Your task to perform on an android device: Go to network settings Image 0: 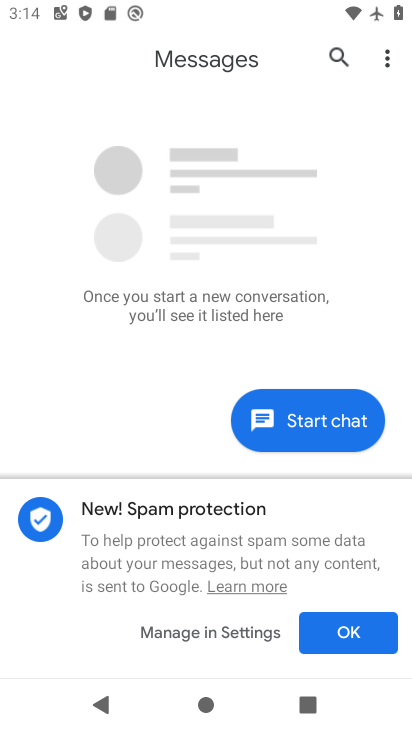
Step 0: press home button
Your task to perform on an android device: Go to network settings Image 1: 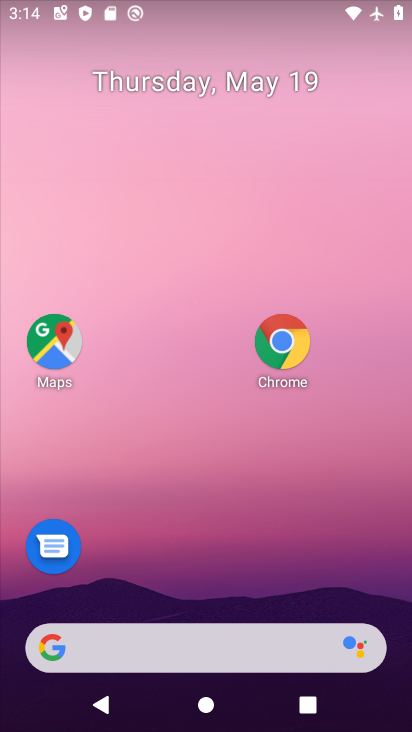
Step 1: drag from (157, 651) to (409, 111)
Your task to perform on an android device: Go to network settings Image 2: 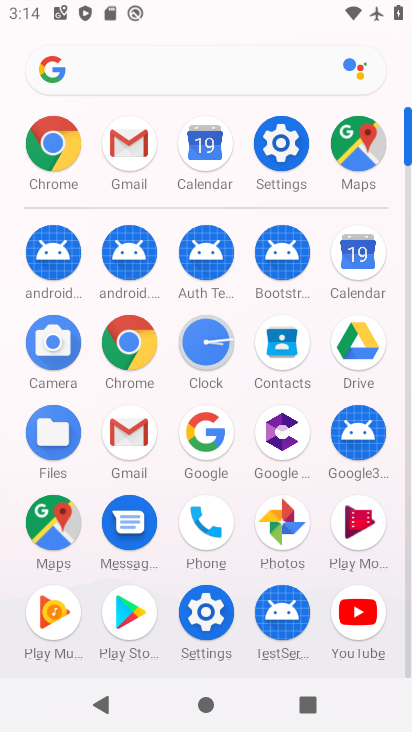
Step 2: click (278, 157)
Your task to perform on an android device: Go to network settings Image 3: 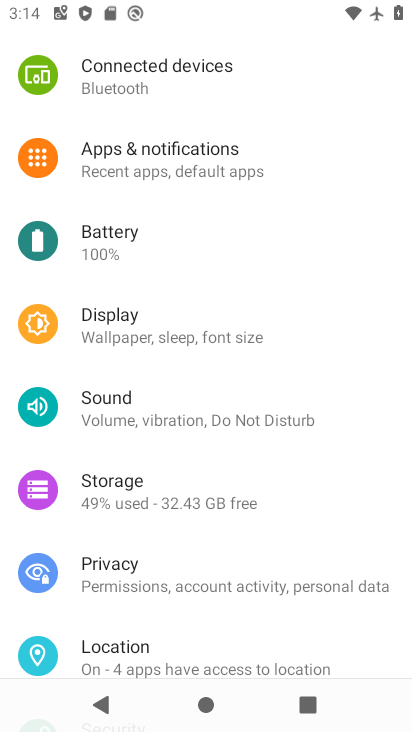
Step 3: drag from (323, 96) to (261, 569)
Your task to perform on an android device: Go to network settings Image 4: 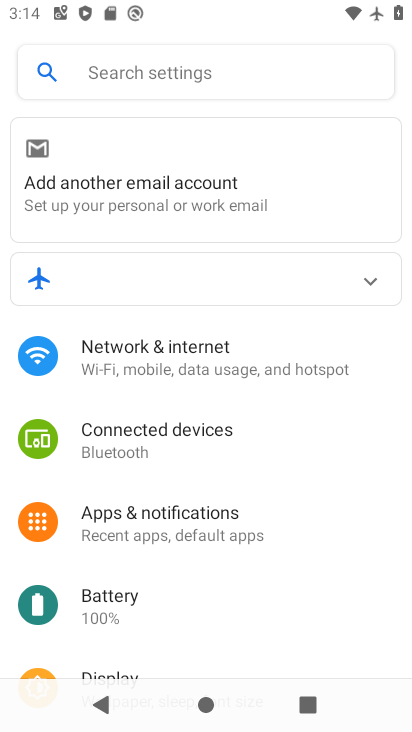
Step 4: click (248, 355)
Your task to perform on an android device: Go to network settings Image 5: 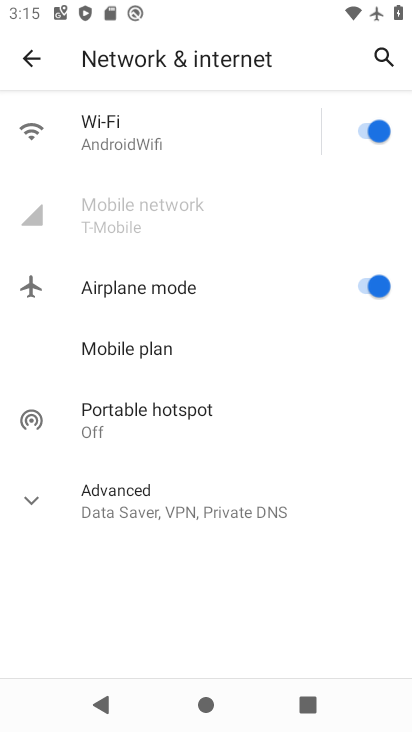
Step 5: task complete